Your task to perform on an android device: turn off smart reply in the gmail app Image 0: 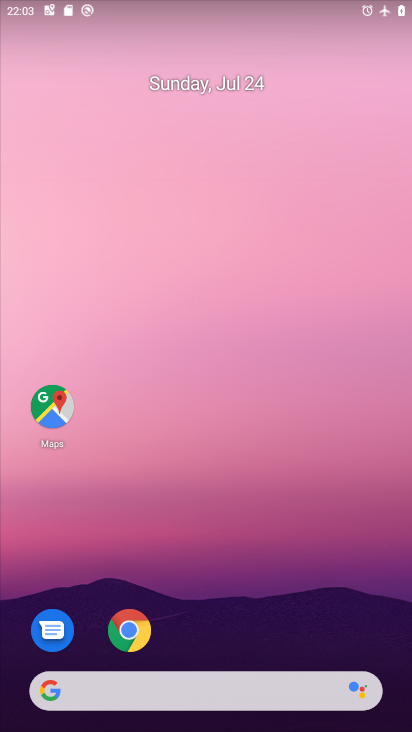
Step 0: drag from (205, 613) to (207, 197)
Your task to perform on an android device: turn off smart reply in the gmail app Image 1: 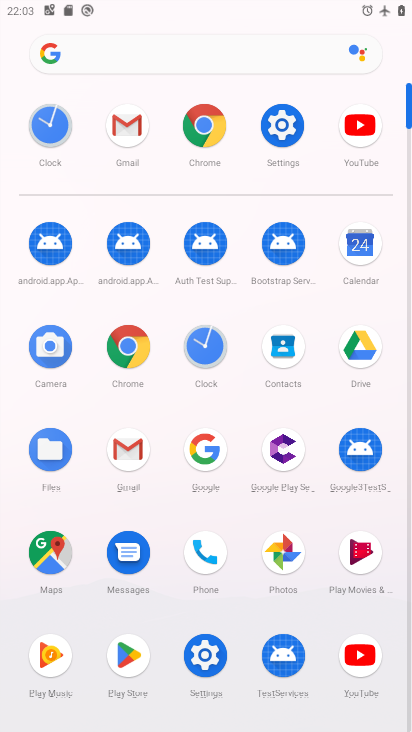
Step 1: click (114, 122)
Your task to perform on an android device: turn off smart reply in the gmail app Image 2: 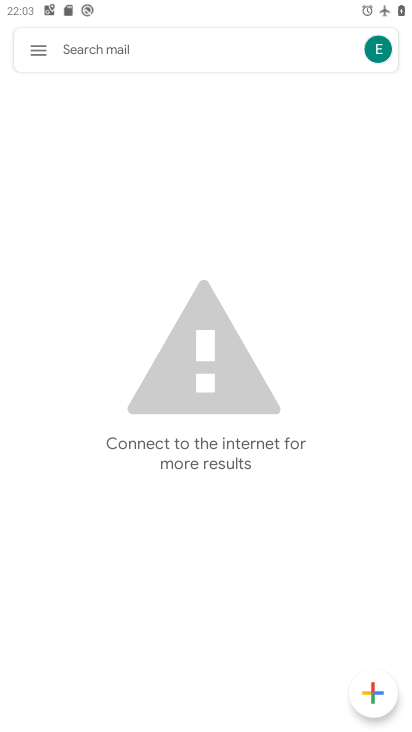
Step 2: click (49, 47)
Your task to perform on an android device: turn off smart reply in the gmail app Image 3: 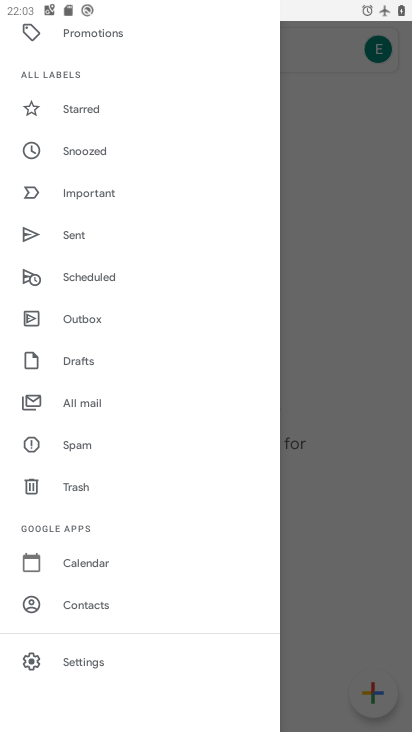
Step 3: click (76, 652)
Your task to perform on an android device: turn off smart reply in the gmail app Image 4: 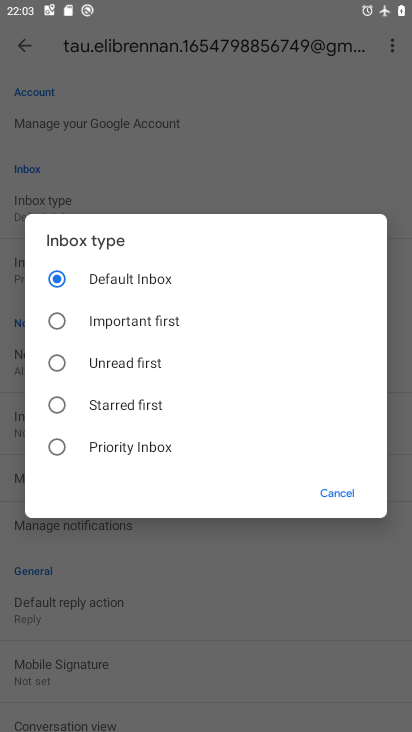
Step 4: click (179, 152)
Your task to perform on an android device: turn off smart reply in the gmail app Image 5: 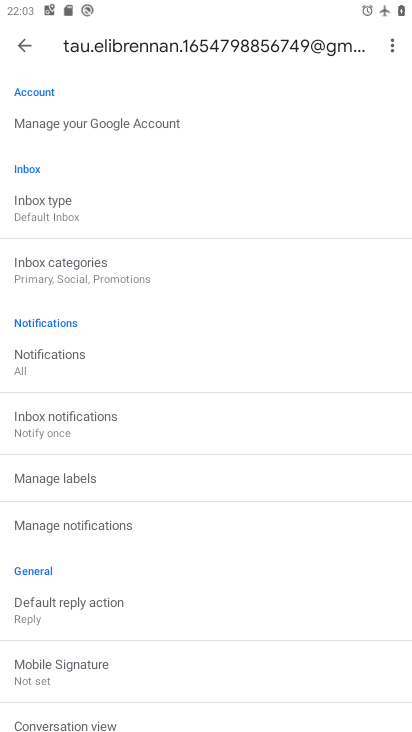
Step 5: drag from (137, 626) to (301, 117)
Your task to perform on an android device: turn off smart reply in the gmail app Image 6: 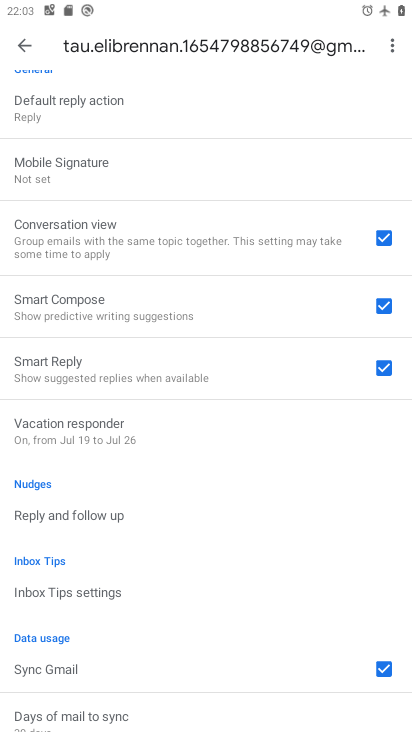
Step 6: click (378, 367)
Your task to perform on an android device: turn off smart reply in the gmail app Image 7: 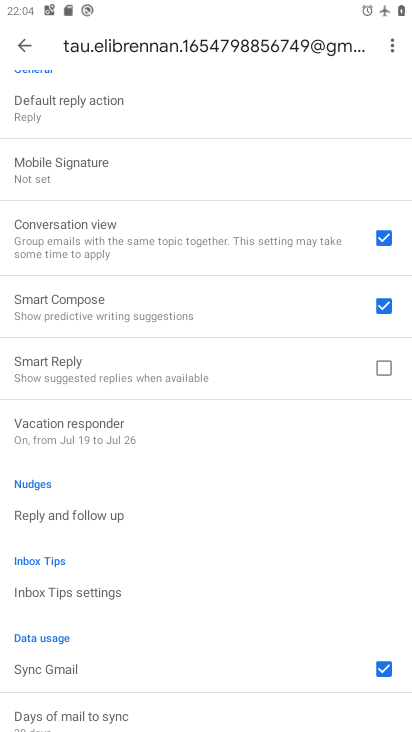
Step 7: task complete